Your task to perform on an android device: Open Google Chrome and click the shortcut for Amazon.com Image 0: 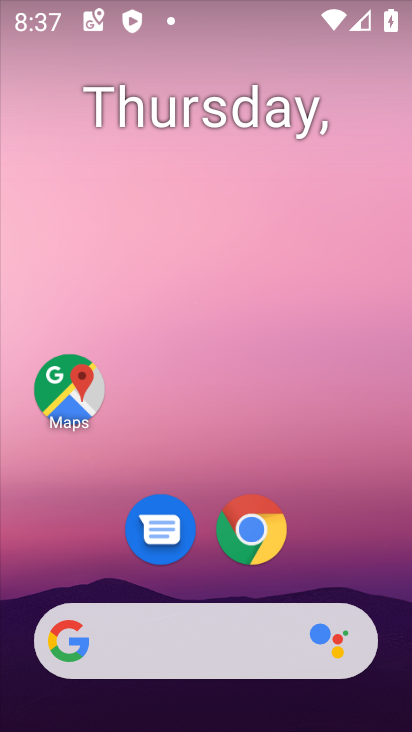
Step 0: click (257, 529)
Your task to perform on an android device: Open Google Chrome and click the shortcut for Amazon.com Image 1: 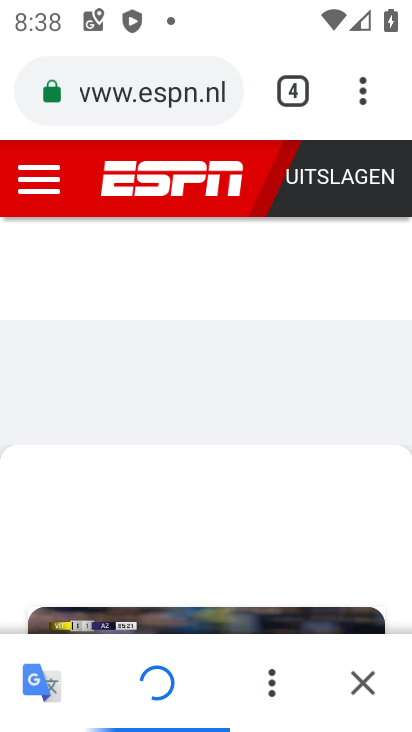
Step 1: click (364, 97)
Your task to perform on an android device: Open Google Chrome and click the shortcut for Amazon.com Image 2: 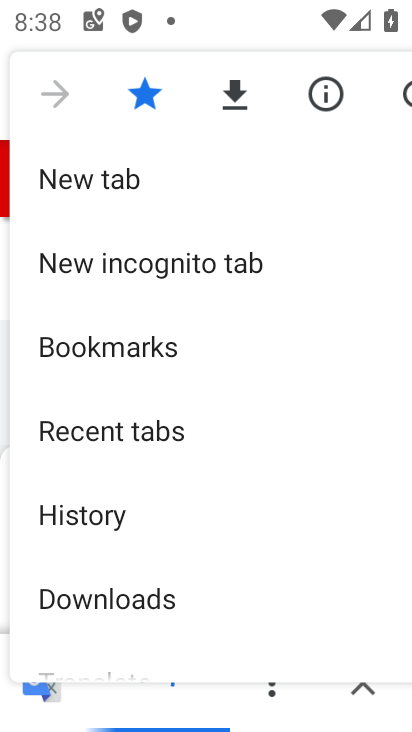
Step 2: click (102, 179)
Your task to perform on an android device: Open Google Chrome and click the shortcut for Amazon.com Image 3: 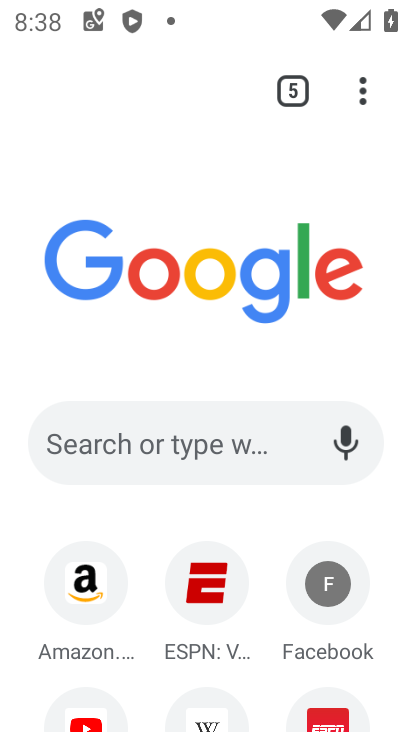
Step 3: click (97, 575)
Your task to perform on an android device: Open Google Chrome and click the shortcut for Amazon.com Image 4: 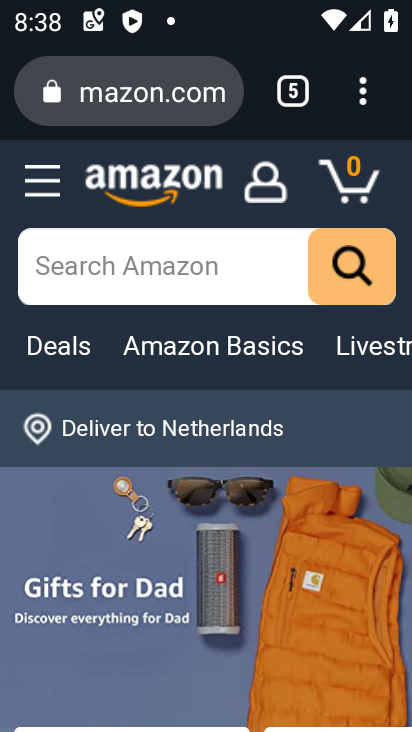
Step 4: task complete